Your task to perform on an android device: change the clock display to show seconds Image 0: 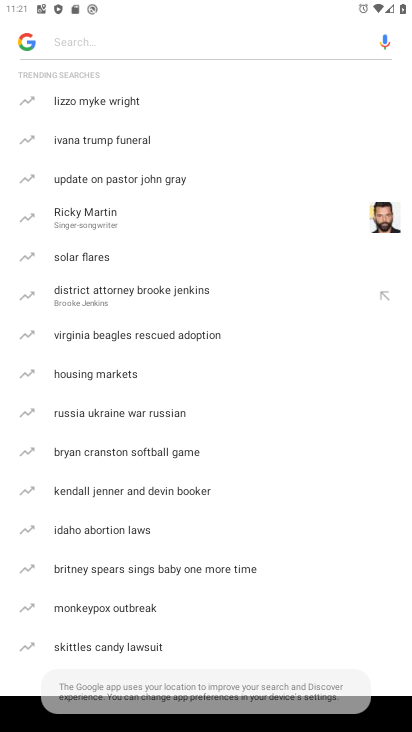
Step 0: press home button
Your task to perform on an android device: change the clock display to show seconds Image 1: 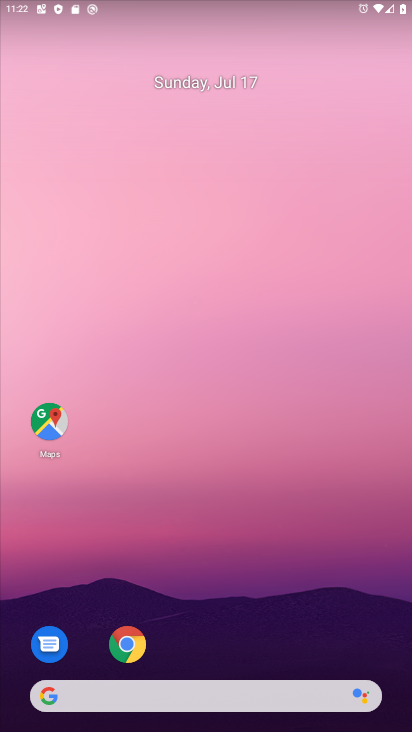
Step 1: drag from (216, 607) to (271, 80)
Your task to perform on an android device: change the clock display to show seconds Image 2: 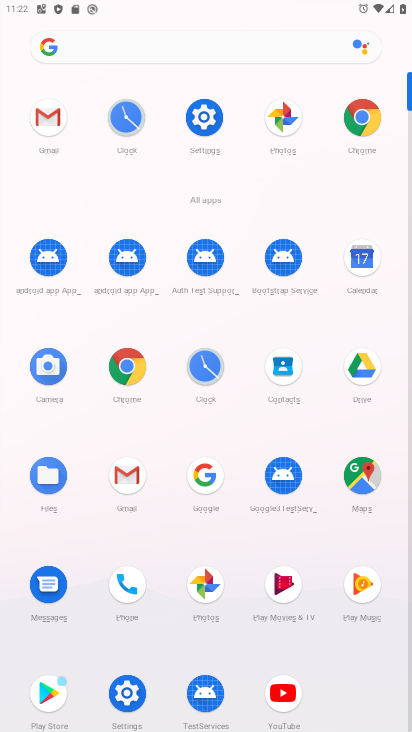
Step 2: click (195, 375)
Your task to perform on an android device: change the clock display to show seconds Image 3: 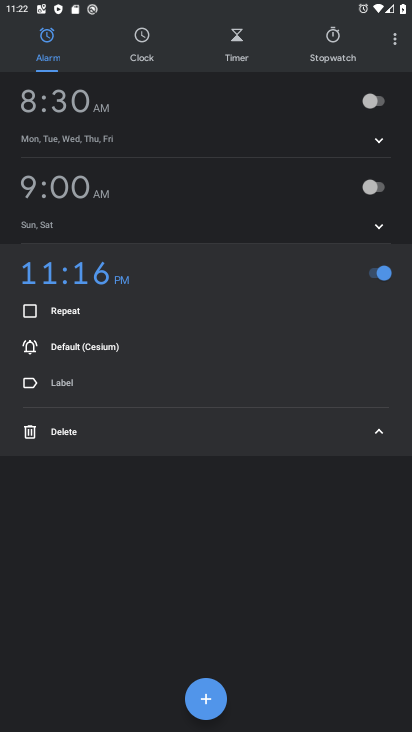
Step 3: click (394, 49)
Your task to perform on an android device: change the clock display to show seconds Image 4: 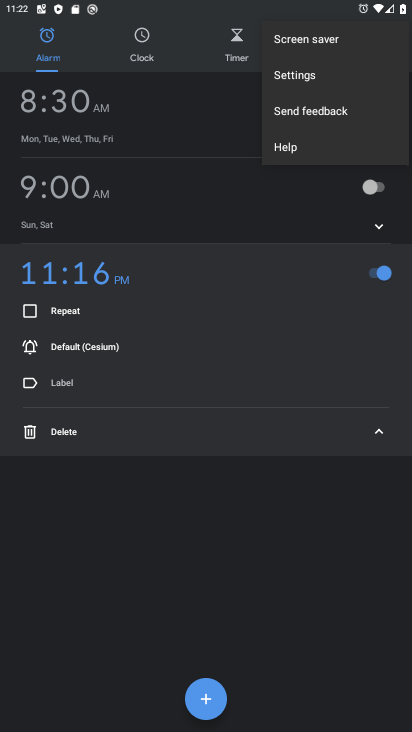
Step 4: click (305, 86)
Your task to perform on an android device: change the clock display to show seconds Image 5: 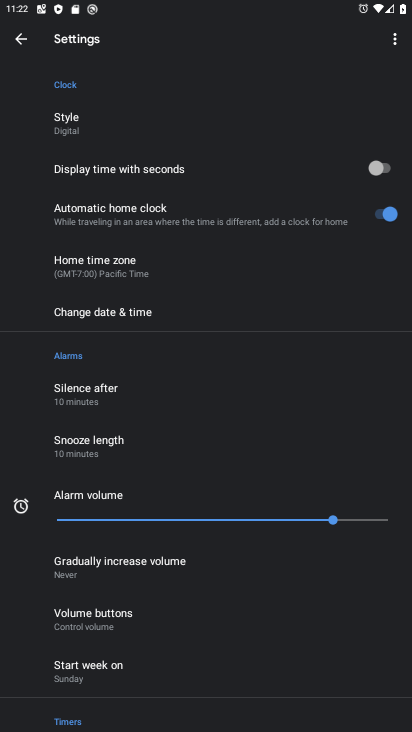
Step 5: click (391, 160)
Your task to perform on an android device: change the clock display to show seconds Image 6: 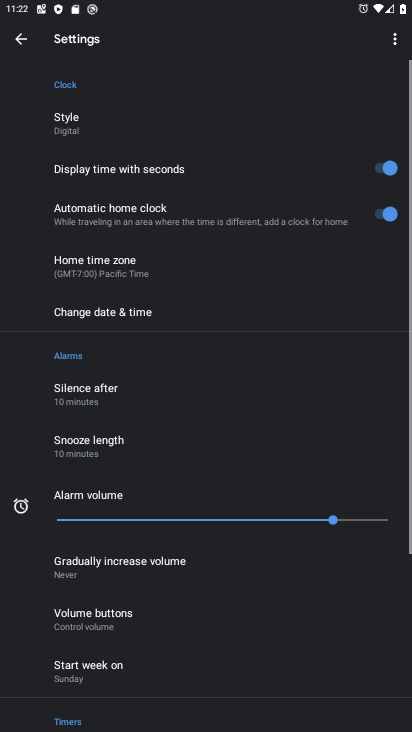
Step 6: task complete